Your task to perform on an android device: move a message to another label in the gmail app Image 0: 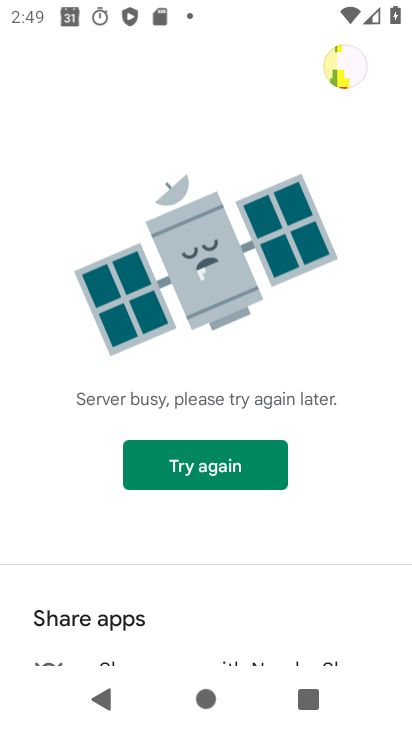
Step 0: click (362, 186)
Your task to perform on an android device: move a message to another label in the gmail app Image 1: 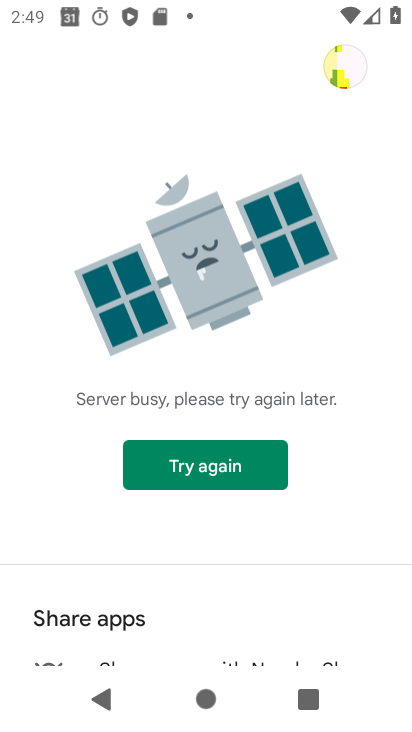
Step 1: press home button
Your task to perform on an android device: move a message to another label in the gmail app Image 2: 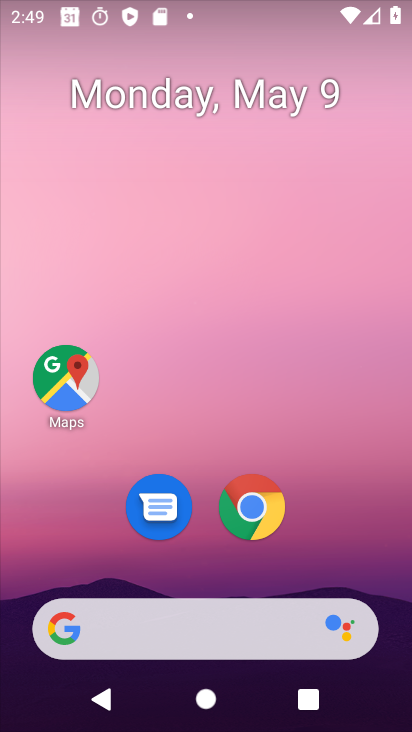
Step 2: drag from (308, 593) to (361, 75)
Your task to perform on an android device: move a message to another label in the gmail app Image 3: 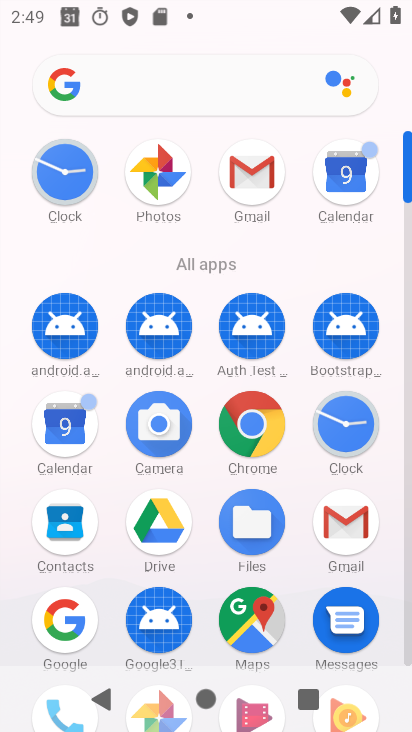
Step 3: click (233, 159)
Your task to perform on an android device: move a message to another label in the gmail app Image 4: 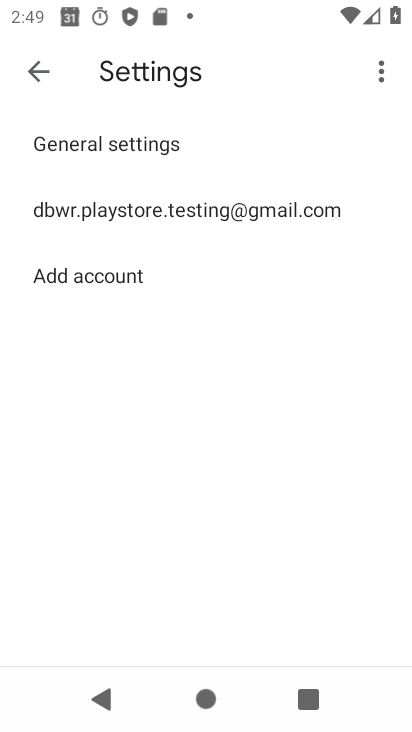
Step 4: click (216, 209)
Your task to perform on an android device: move a message to another label in the gmail app Image 5: 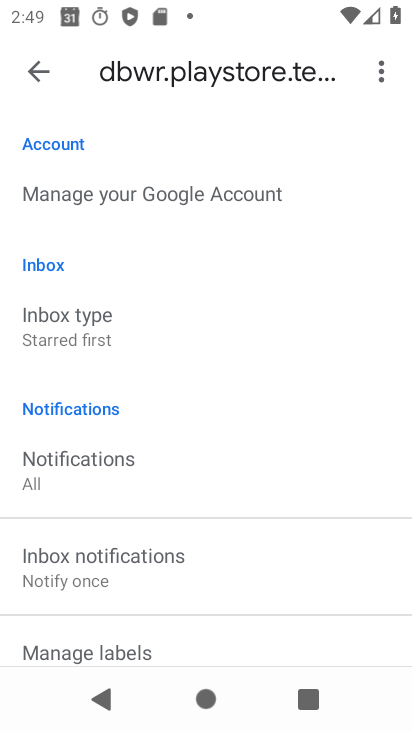
Step 5: click (48, 72)
Your task to perform on an android device: move a message to another label in the gmail app Image 6: 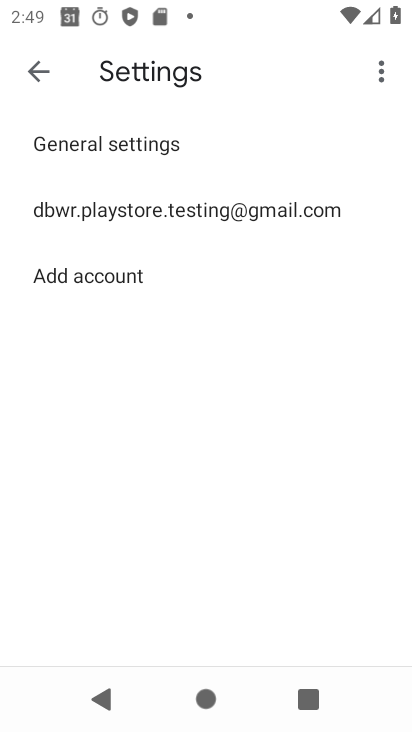
Step 6: click (48, 72)
Your task to perform on an android device: move a message to another label in the gmail app Image 7: 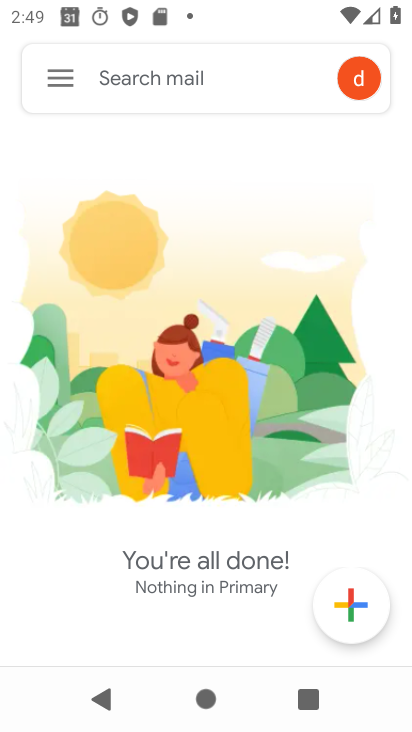
Step 7: click (48, 72)
Your task to perform on an android device: move a message to another label in the gmail app Image 8: 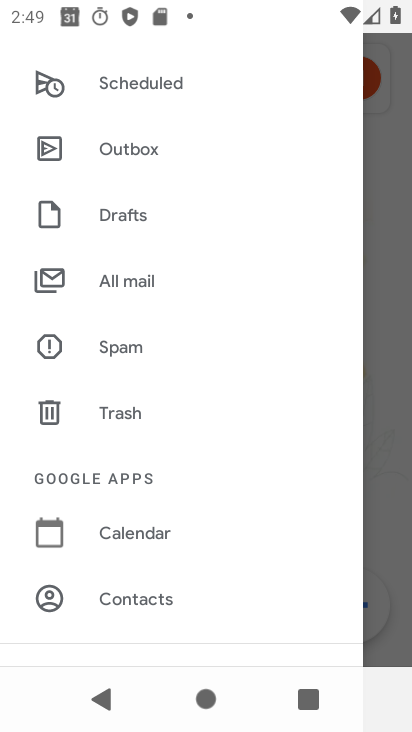
Step 8: click (145, 292)
Your task to perform on an android device: move a message to another label in the gmail app Image 9: 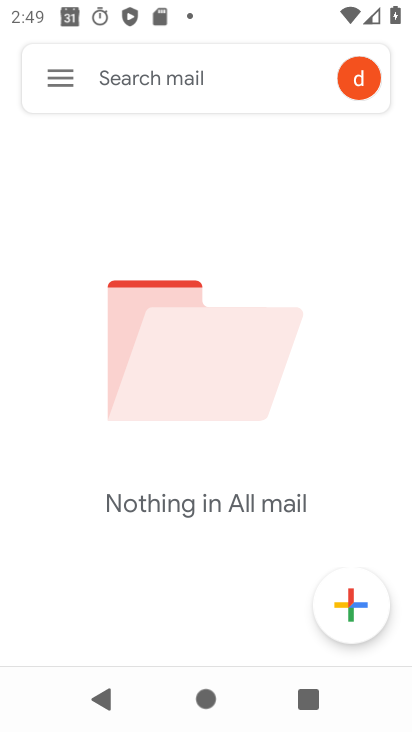
Step 9: task complete